Your task to perform on an android device: set default search engine in the chrome app Image 0: 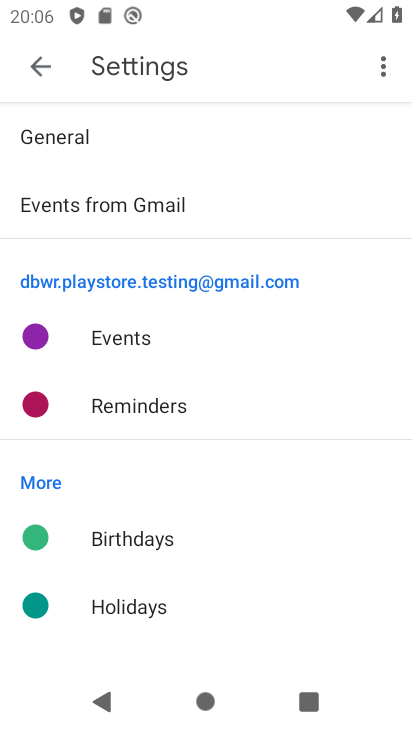
Step 0: press home button
Your task to perform on an android device: set default search engine in the chrome app Image 1: 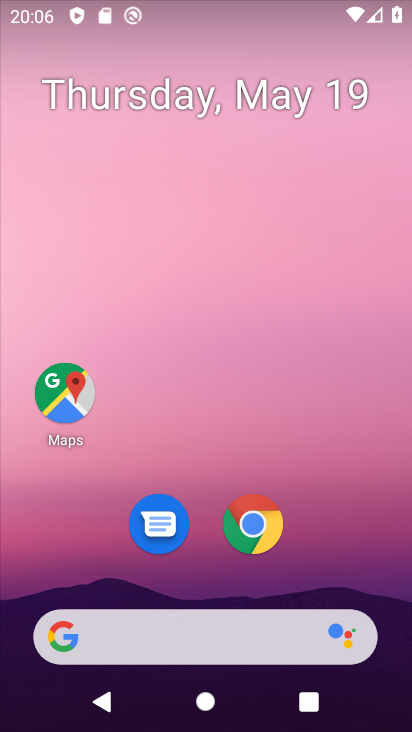
Step 1: click (253, 528)
Your task to perform on an android device: set default search engine in the chrome app Image 2: 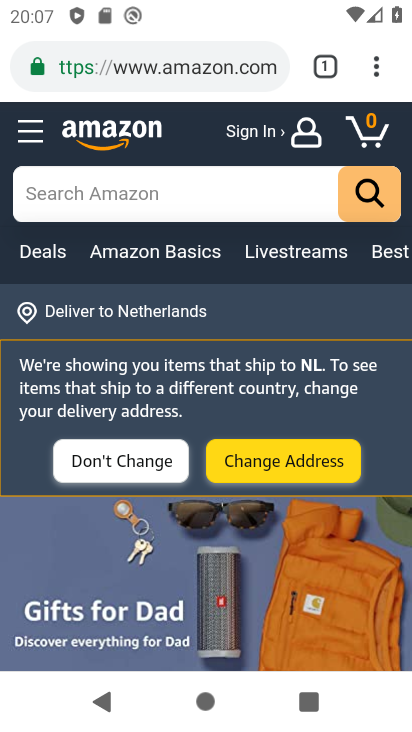
Step 2: click (373, 68)
Your task to perform on an android device: set default search engine in the chrome app Image 3: 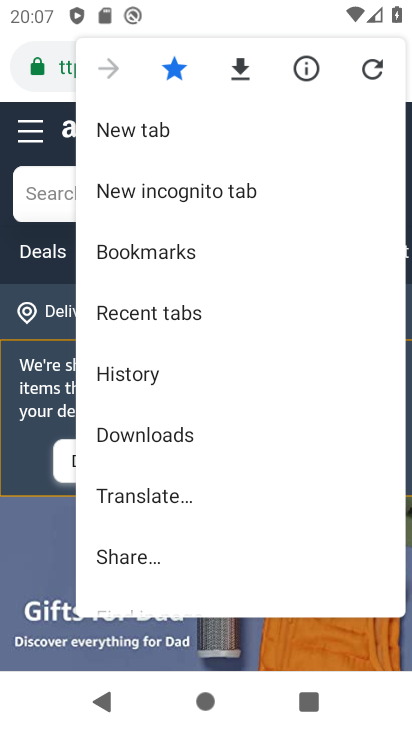
Step 3: drag from (225, 490) to (271, 234)
Your task to perform on an android device: set default search engine in the chrome app Image 4: 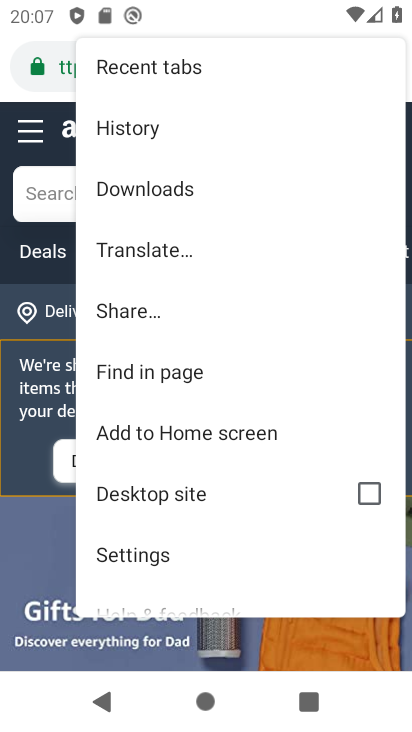
Step 4: click (151, 547)
Your task to perform on an android device: set default search engine in the chrome app Image 5: 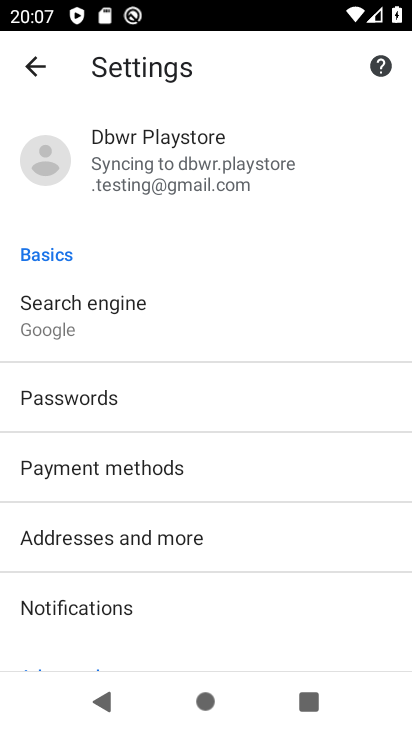
Step 5: click (140, 312)
Your task to perform on an android device: set default search engine in the chrome app Image 6: 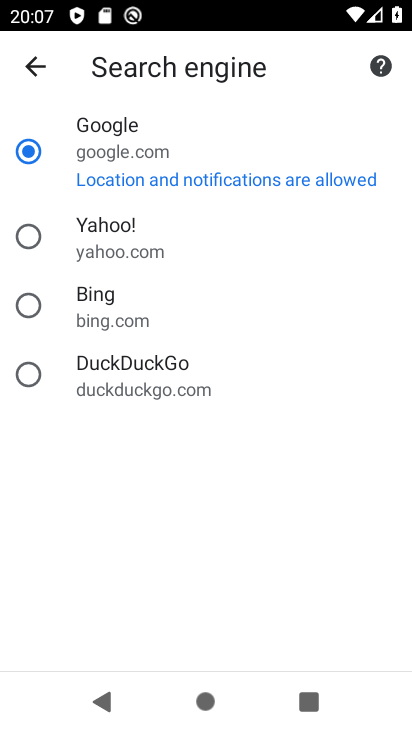
Step 6: task complete